Your task to perform on an android device: check data usage Image 0: 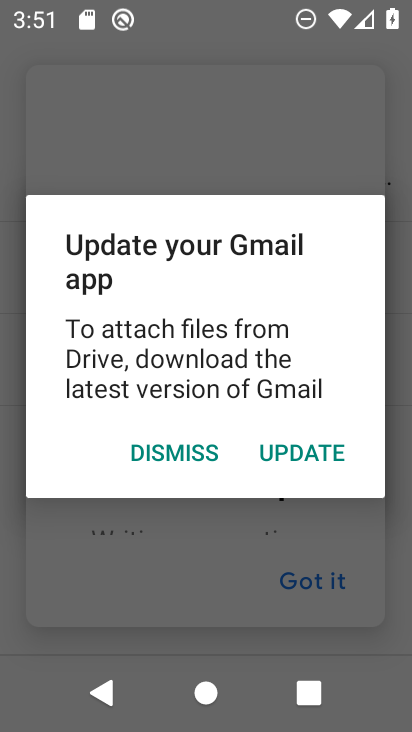
Step 0: press back button
Your task to perform on an android device: check data usage Image 1: 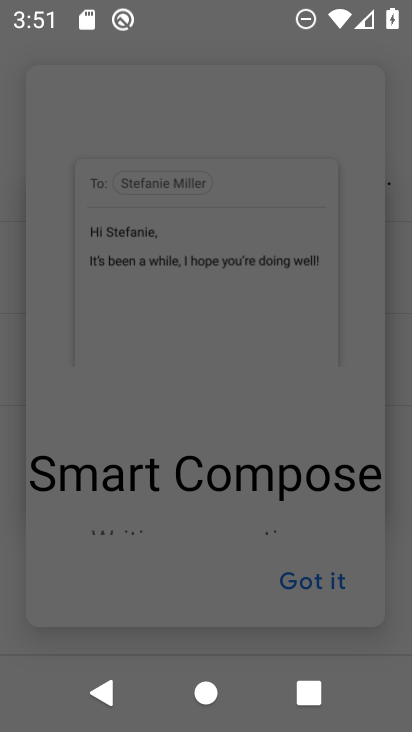
Step 1: press back button
Your task to perform on an android device: check data usage Image 2: 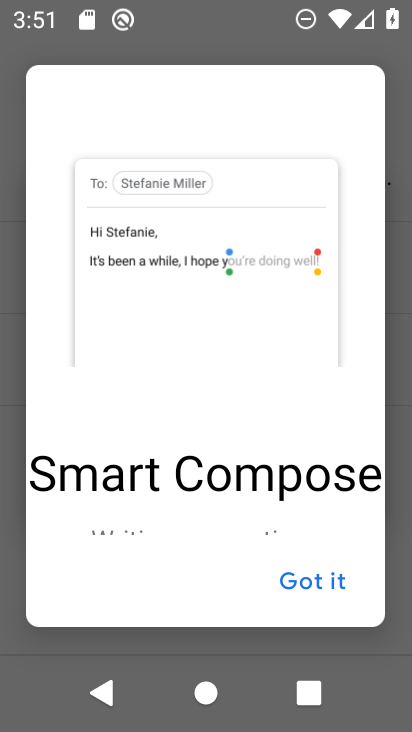
Step 2: press back button
Your task to perform on an android device: check data usage Image 3: 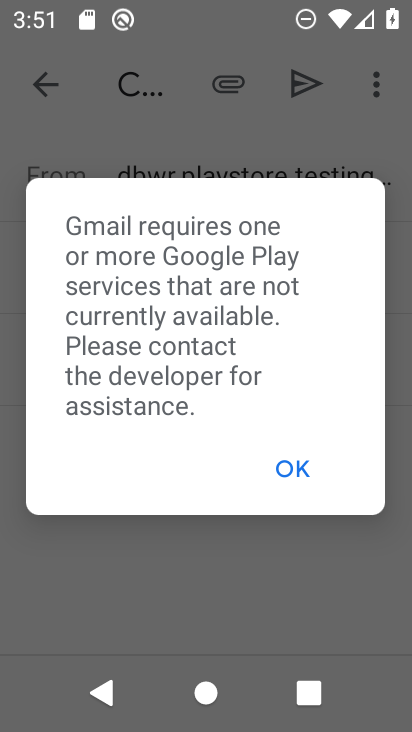
Step 3: press back button
Your task to perform on an android device: check data usage Image 4: 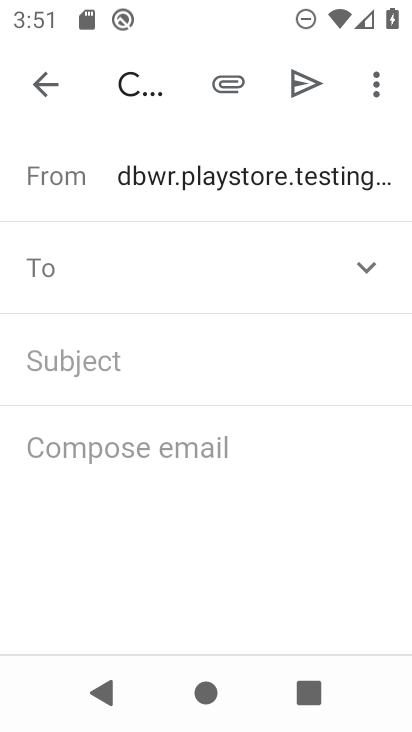
Step 4: press back button
Your task to perform on an android device: check data usage Image 5: 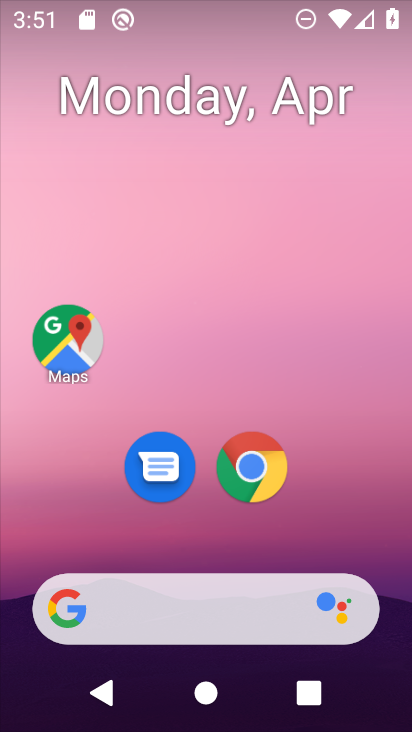
Step 5: drag from (194, 506) to (305, 31)
Your task to perform on an android device: check data usage Image 6: 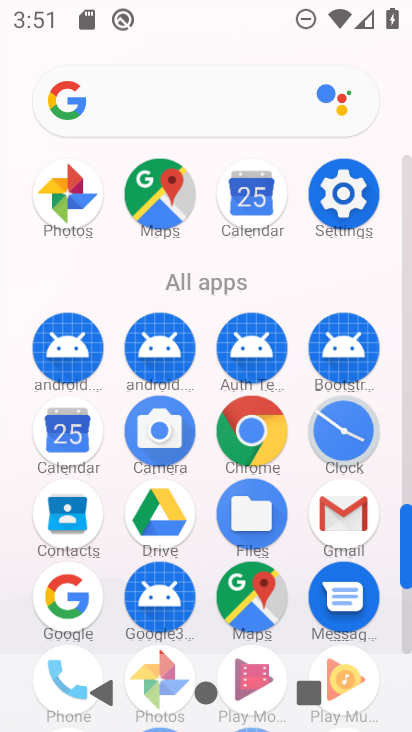
Step 6: click (357, 202)
Your task to perform on an android device: check data usage Image 7: 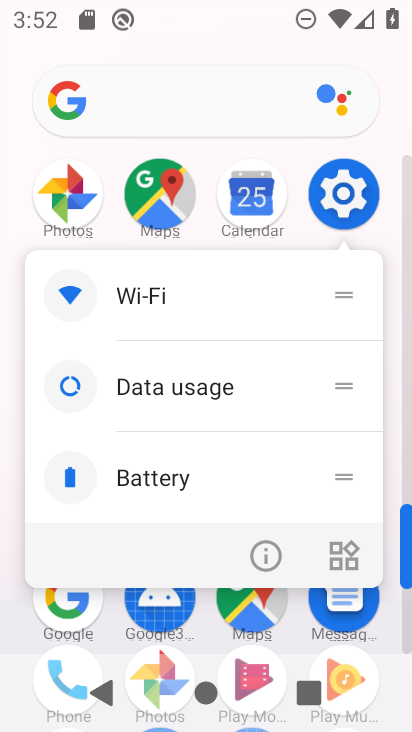
Step 7: click (357, 202)
Your task to perform on an android device: check data usage Image 8: 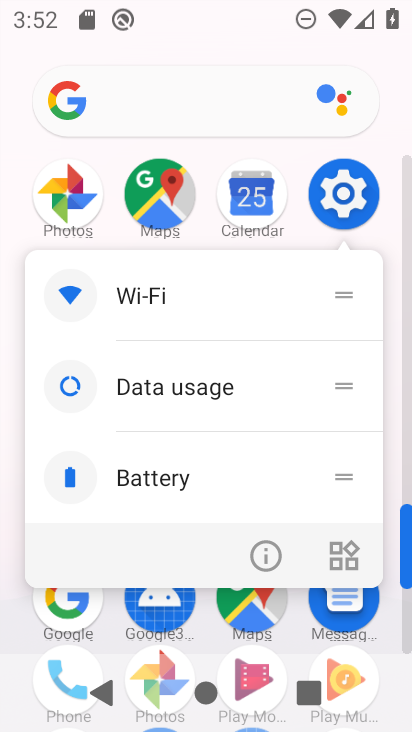
Step 8: click (357, 202)
Your task to perform on an android device: check data usage Image 9: 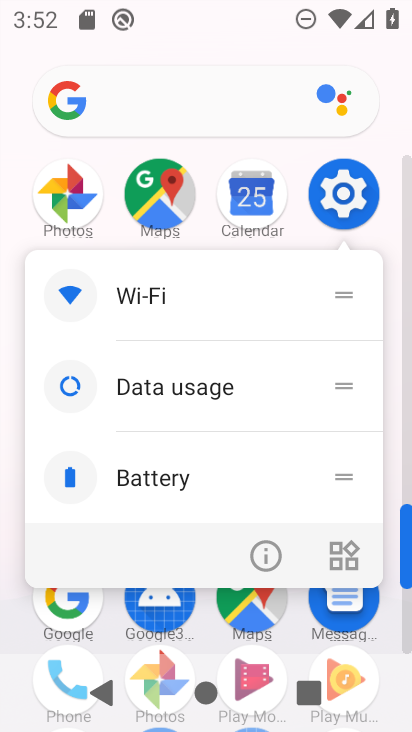
Step 9: click (354, 197)
Your task to perform on an android device: check data usage Image 10: 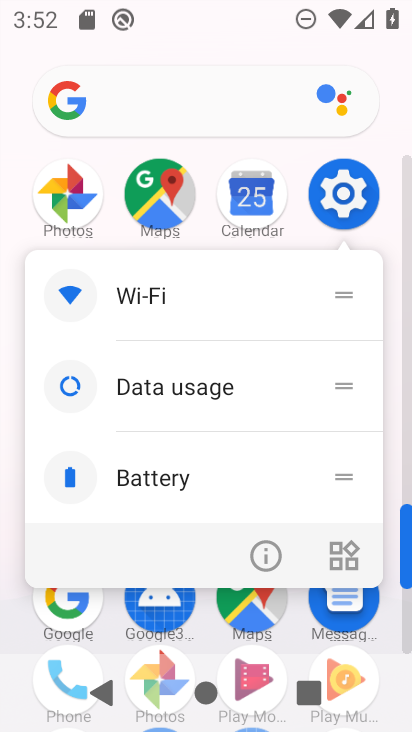
Step 10: click (350, 196)
Your task to perform on an android device: check data usage Image 11: 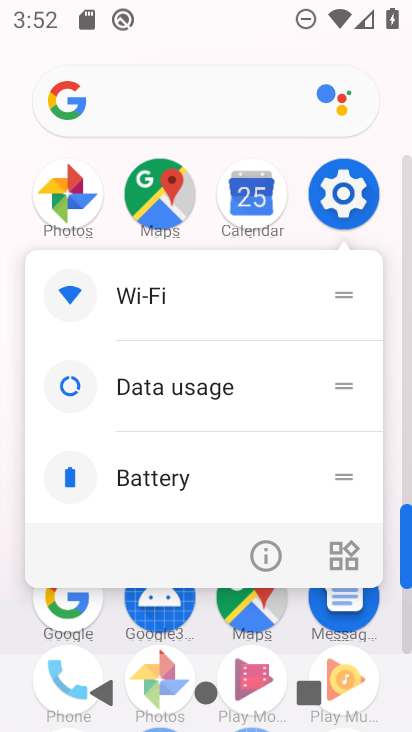
Step 11: click (344, 191)
Your task to perform on an android device: check data usage Image 12: 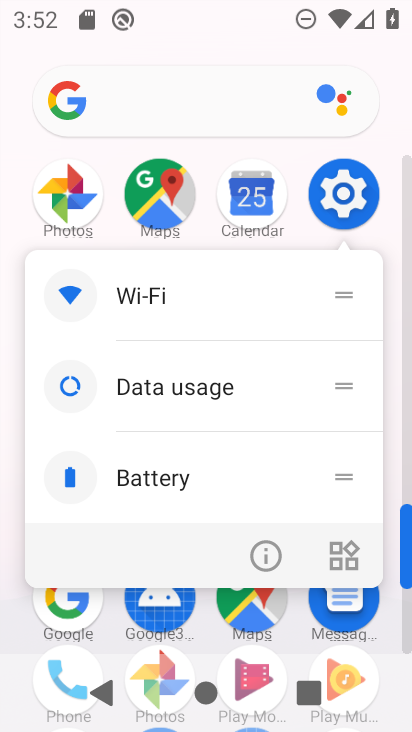
Step 12: click (320, 211)
Your task to perform on an android device: check data usage Image 13: 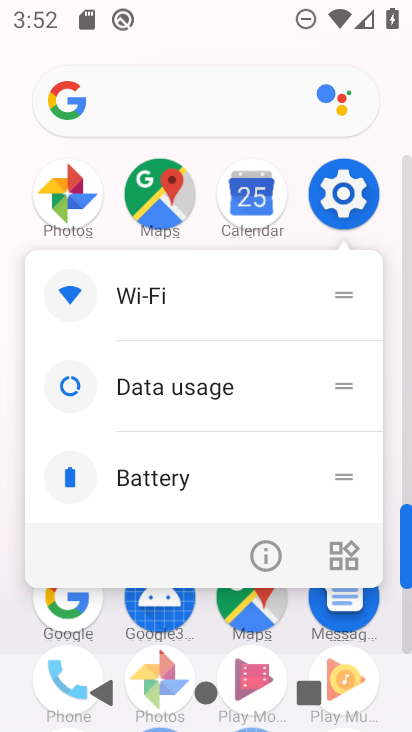
Step 13: click (354, 207)
Your task to perform on an android device: check data usage Image 14: 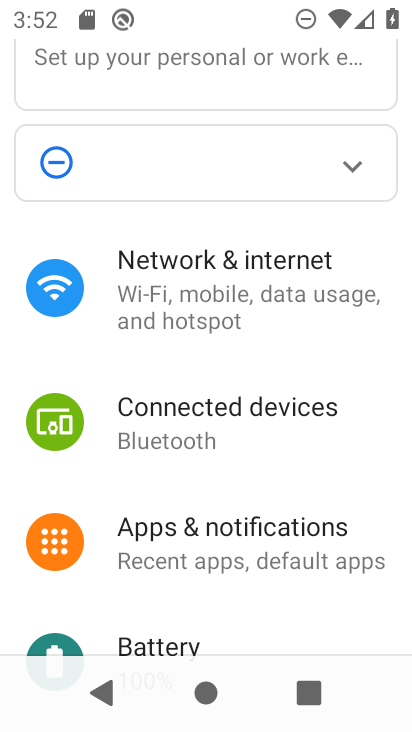
Step 14: click (276, 306)
Your task to perform on an android device: check data usage Image 15: 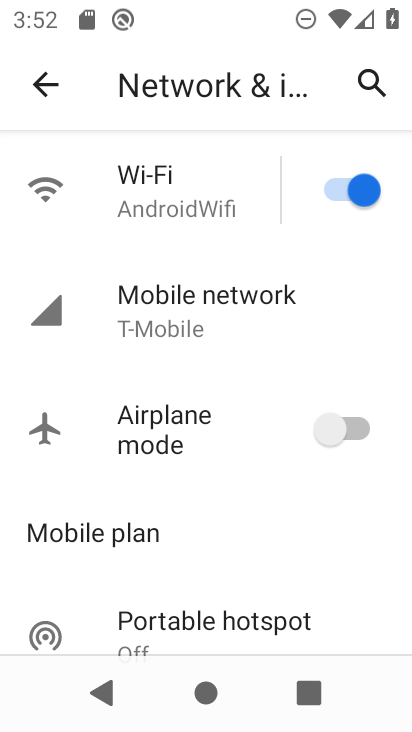
Step 15: click (275, 321)
Your task to perform on an android device: check data usage Image 16: 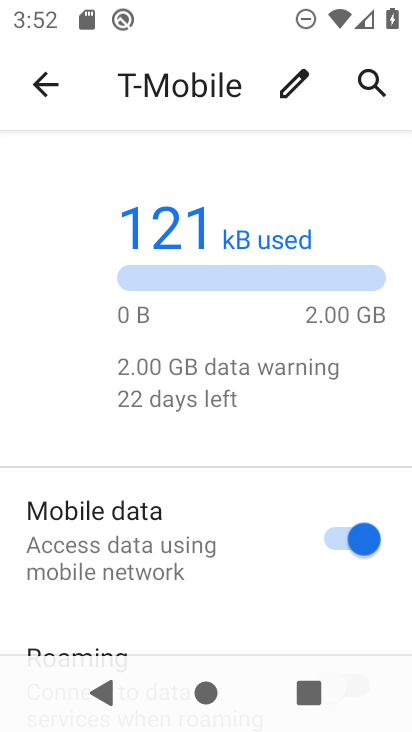
Step 16: drag from (225, 573) to (303, 208)
Your task to perform on an android device: check data usage Image 17: 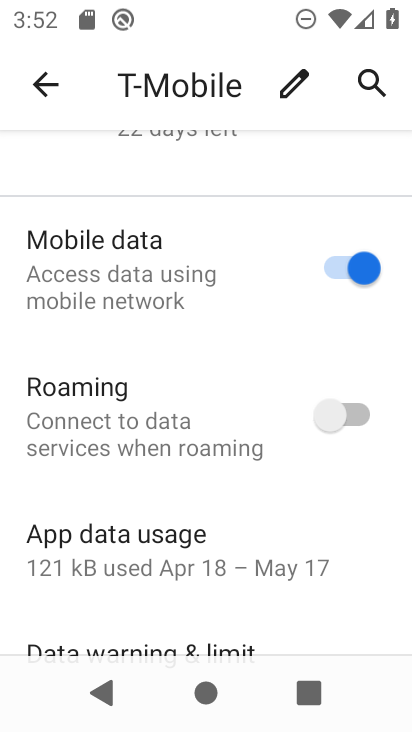
Step 17: click (219, 550)
Your task to perform on an android device: check data usage Image 18: 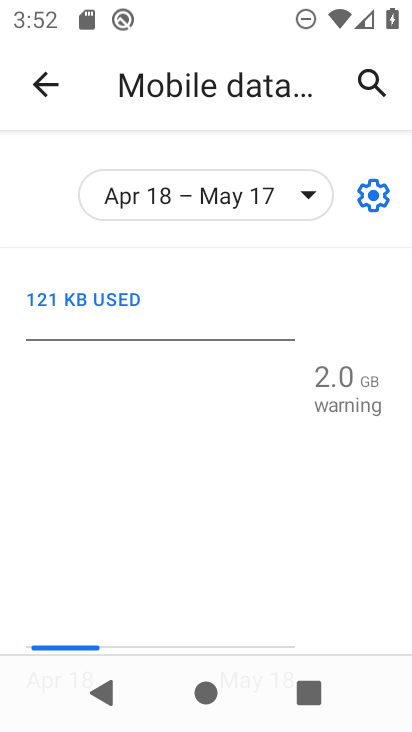
Step 18: task complete